Your task to perform on an android device: Go to calendar. Show me events next week Image 0: 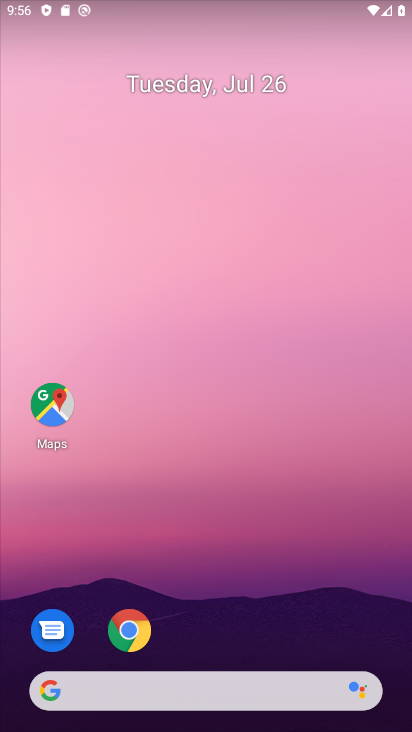
Step 0: drag from (357, 645) to (309, 238)
Your task to perform on an android device: Go to calendar. Show me events next week Image 1: 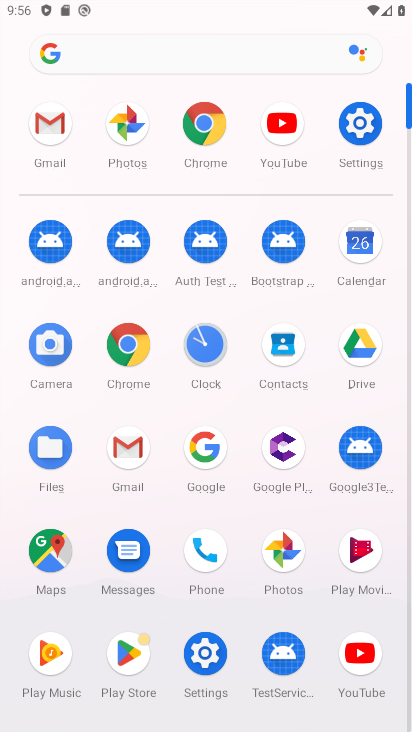
Step 1: click (358, 242)
Your task to perform on an android device: Go to calendar. Show me events next week Image 2: 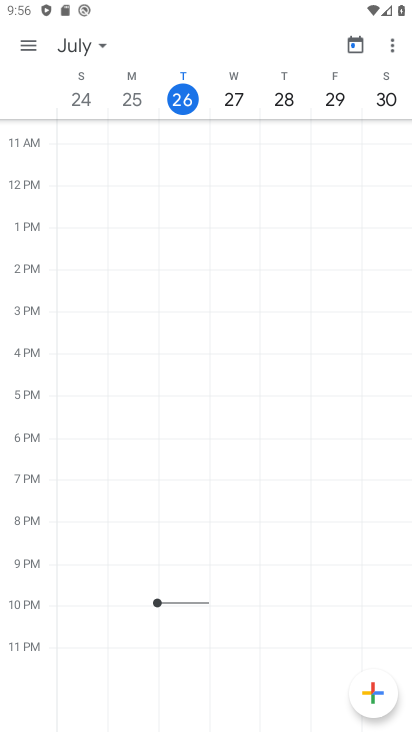
Step 2: click (102, 45)
Your task to perform on an android device: Go to calendar. Show me events next week Image 3: 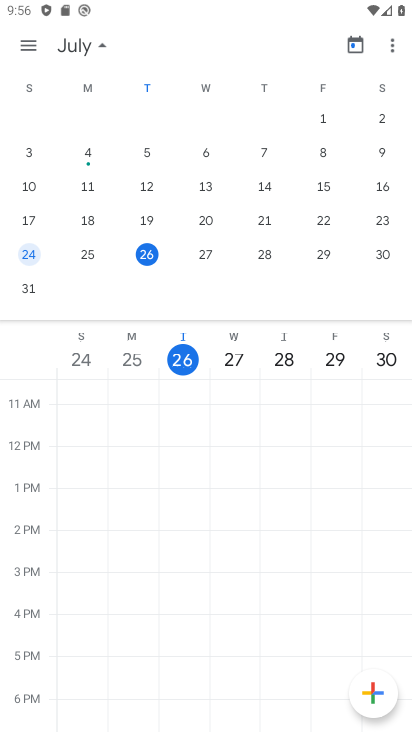
Step 3: click (22, 289)
Your task to perform on an android device: Go to calendar. Show me events next week Image 4: 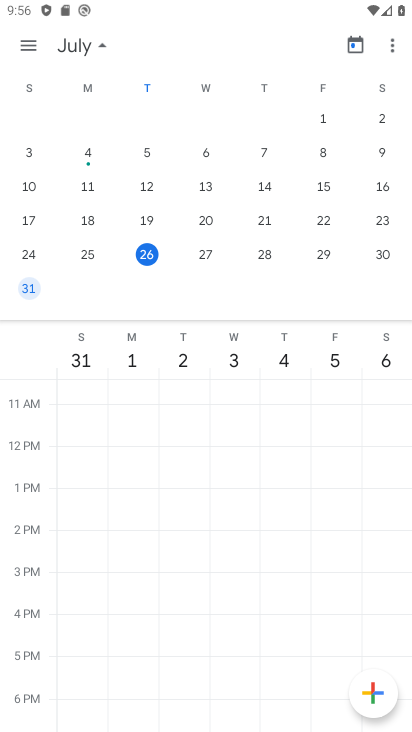
Step 4: task complete